Your task to perform on an android device: see tabs open on other devices in the chrome app Image 0: 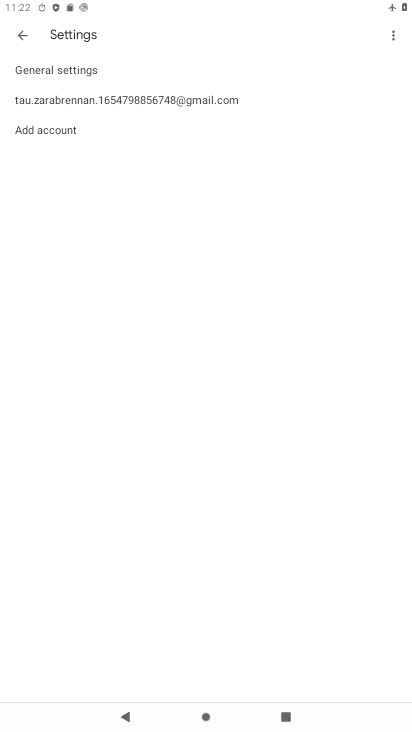
Step 0: press home button
Your task to perform on an android device: see tabs open on other devices in the chrome app Image 1: 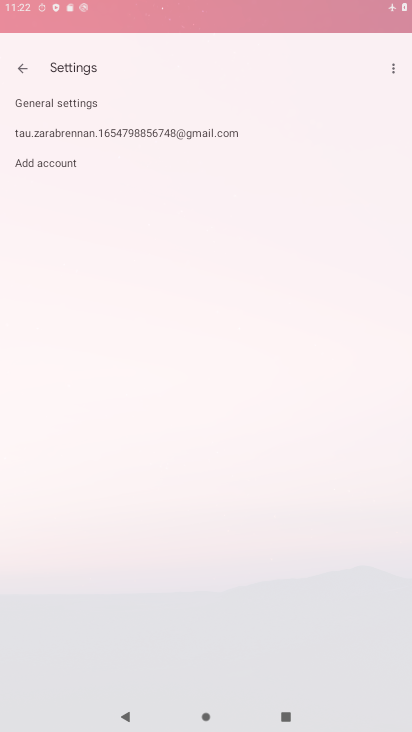
Step 1: drag from (333, 679) to (200, 114)
Your task to perform on an android device: see tabs open on other devices in the chrome app Image 2: 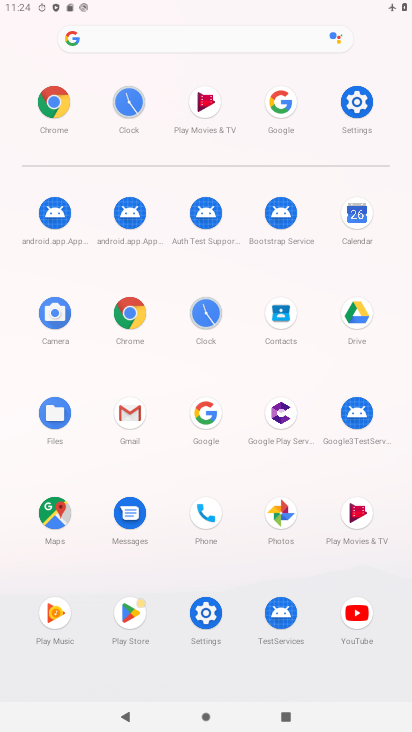
Step 2: click (132, 328)
Your task to perform on an android device: see tabs open on other devices in the chrome app Image 3: 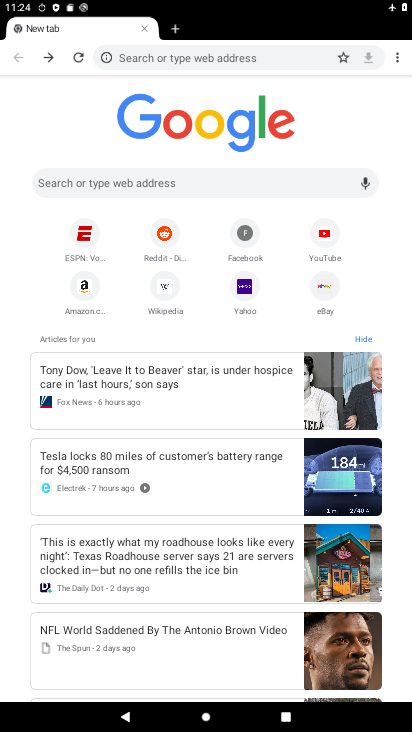
Step 3: task complete